Your task to perform on an android device: Is it going to rain tomorrow? Image 0: 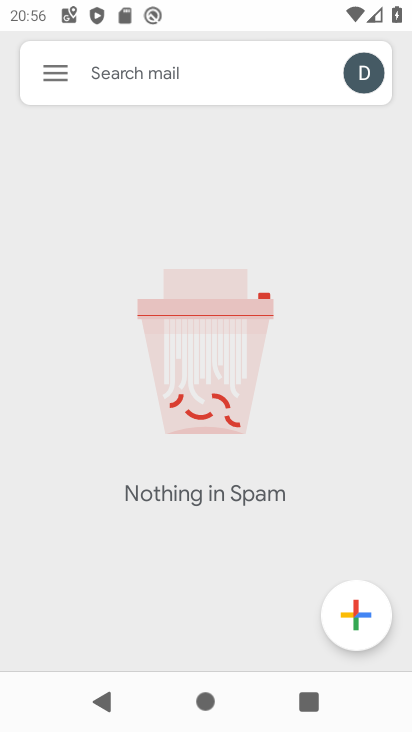
Step 0: press home button
Your task to perform on an android device: Is it going to rain tomorrow? Image 1: 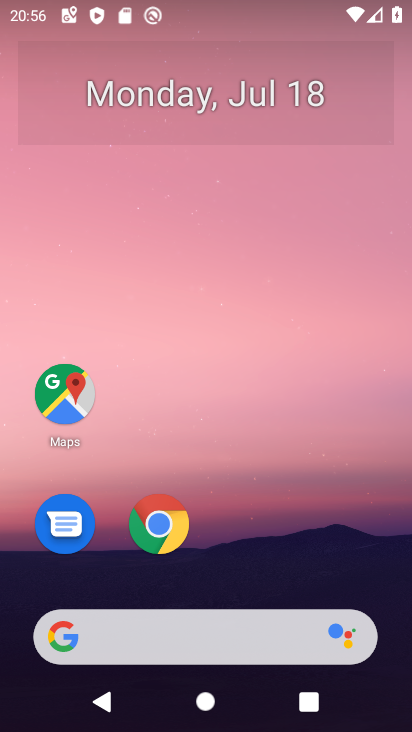
Step 1: click (135, 653)
Your task to perform on an android device: Is it going to rain tomorrow? Image 2: 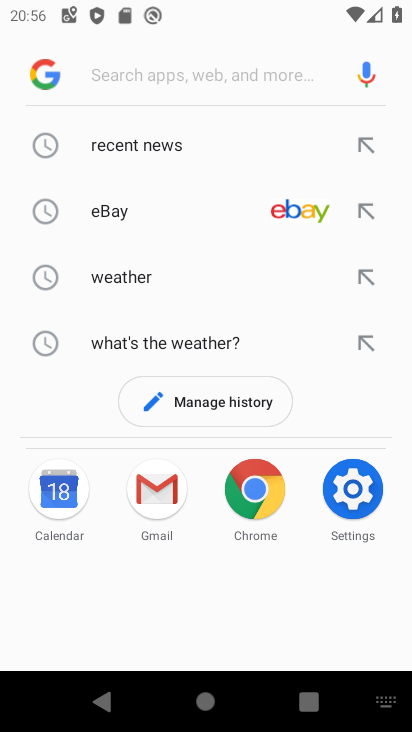
Step 2: click (133, 270)
Your task to perform on an android device: Is it going to rain tomorrow? Image 3: 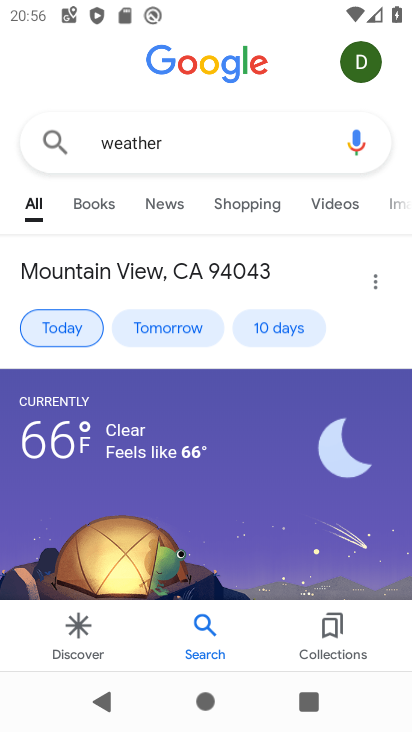
Step 3: click (64, 320)
Your task to perform on an android device: Is it going to rain tomorrow? Image 4: 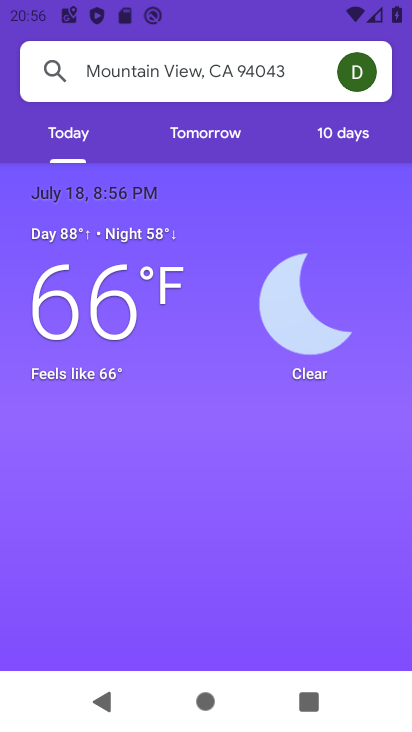
Step 4: click (226, 134)
Your task to perform on an android device: Is it going to rain tomorrow? Image 5: 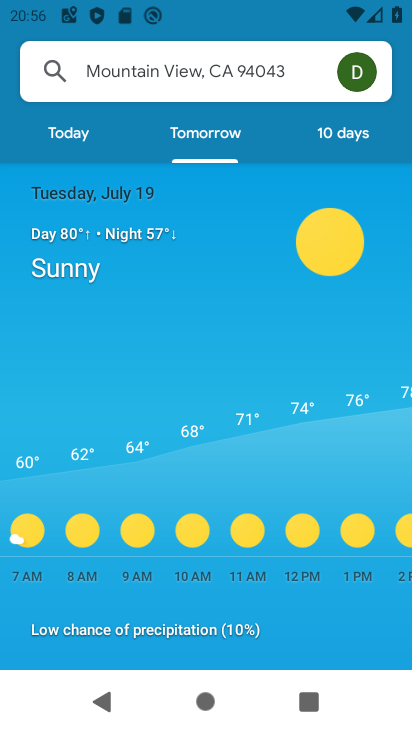
Step 5: task complete